Your task to perform on an android device: find which apps use the phone's location Image 0: 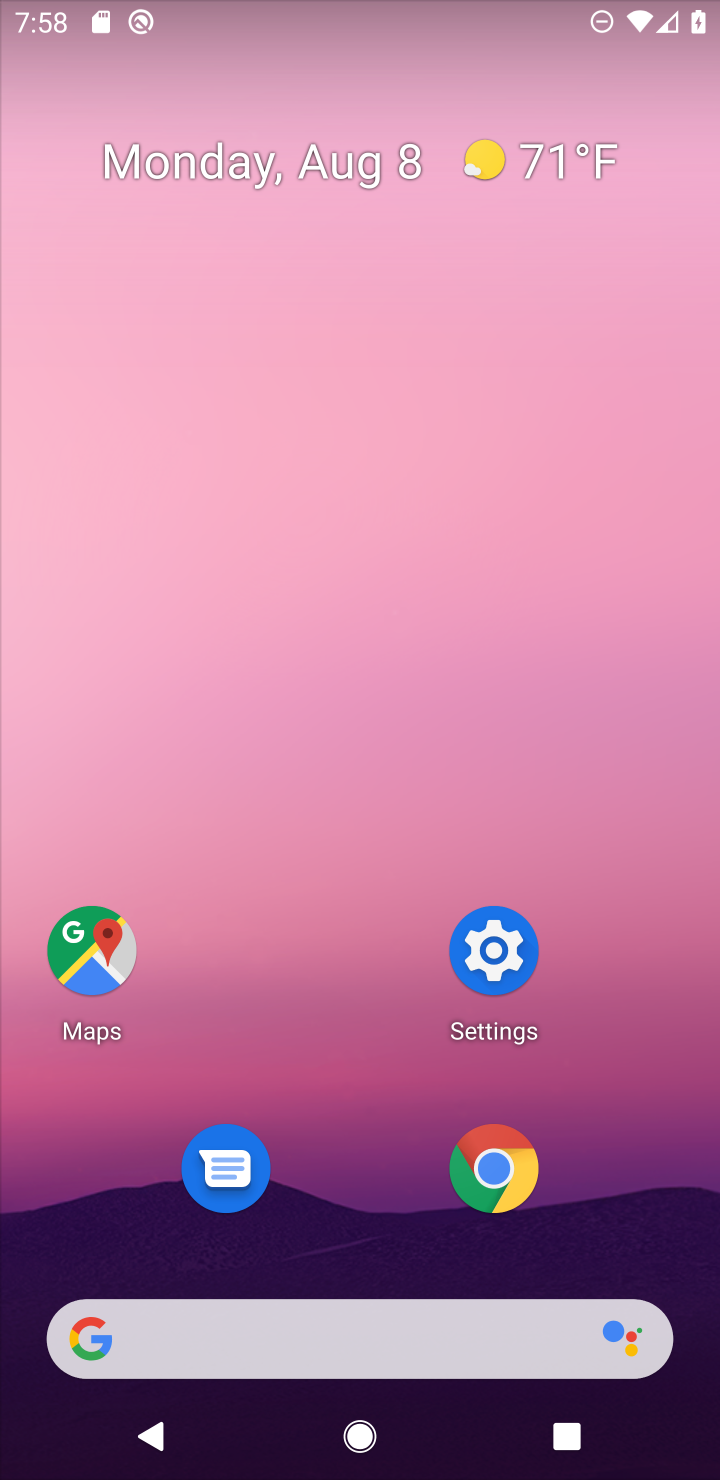
Step 0: press home button
Your task to perform on an android device: find which apps use the phone's location Image 1: 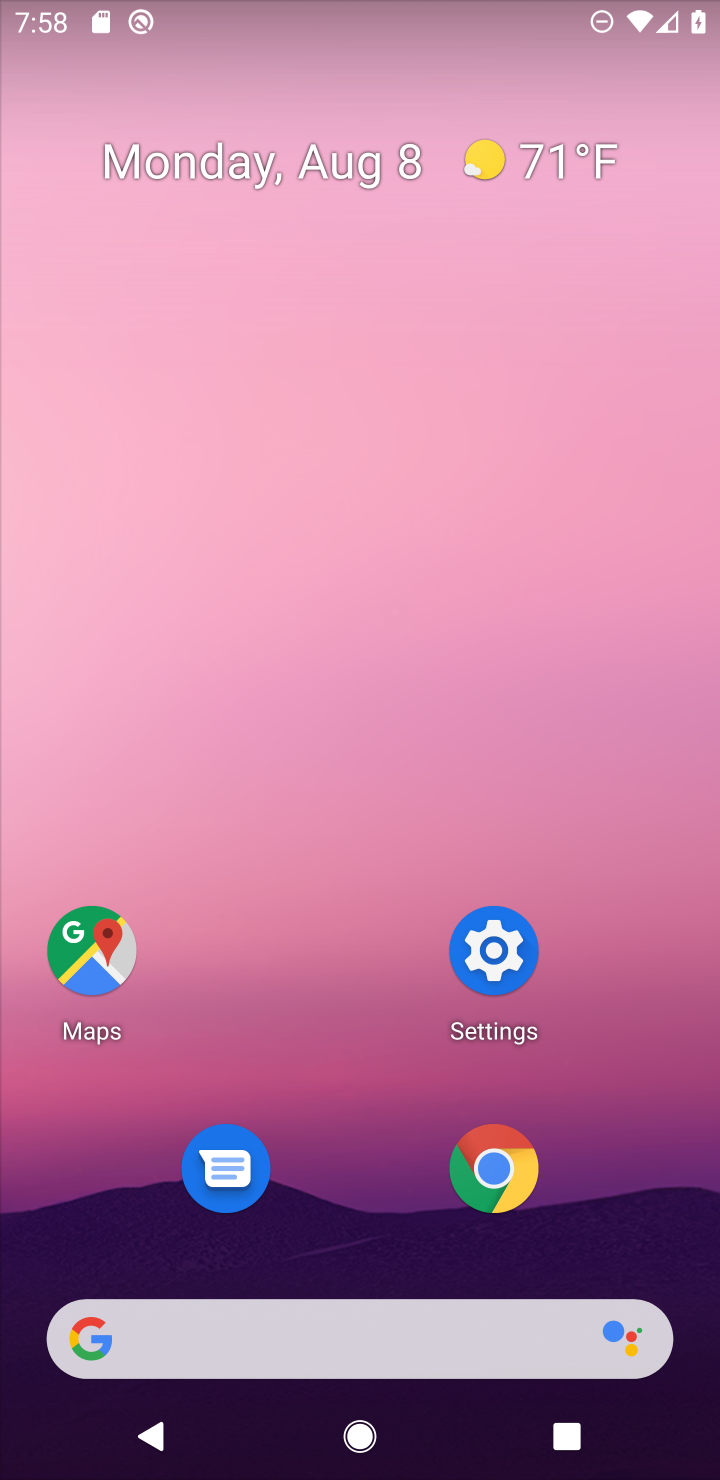
Step 1: click (500, 944)
Your task to perform on an android device: find which apps use the phone's location Image 2: 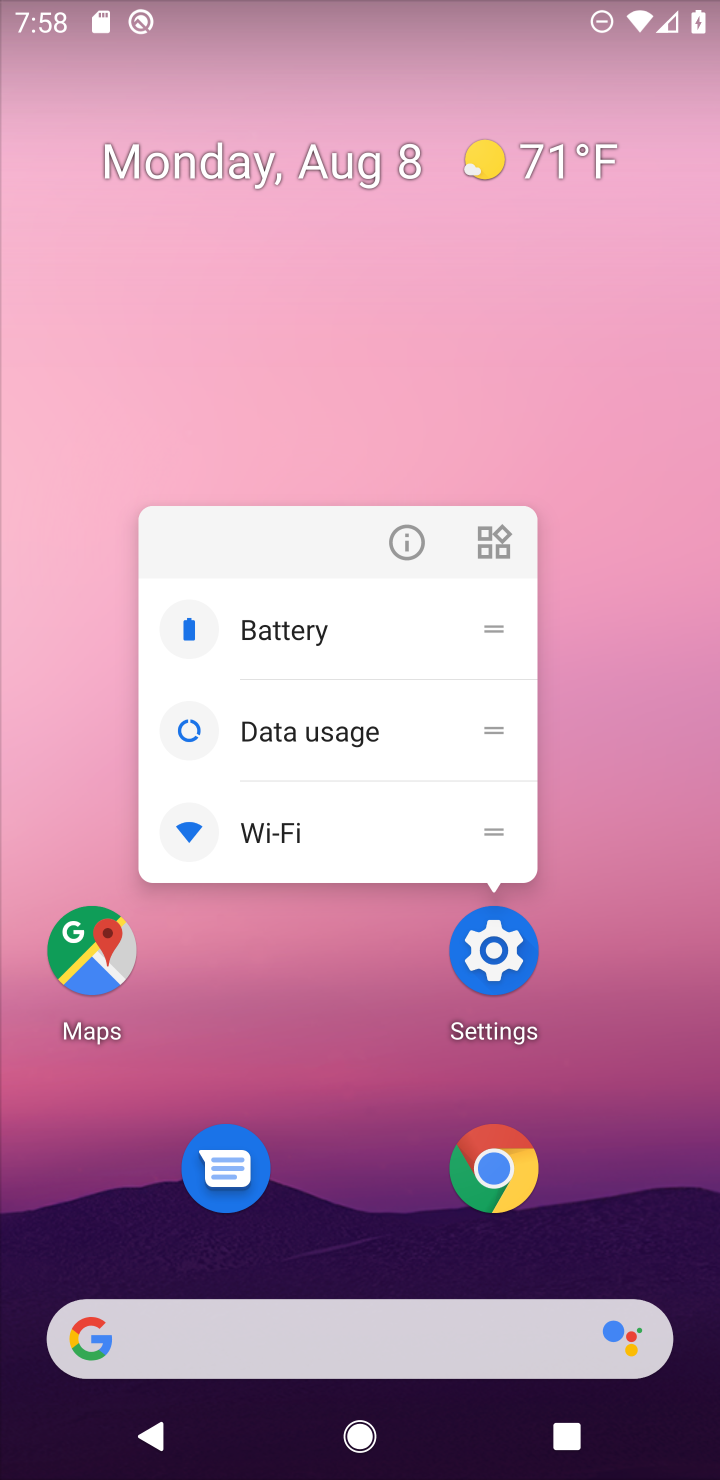
Step 2: click (500, 950)
Your task to perform on an android device: find which apps use the phone's location Image 3: 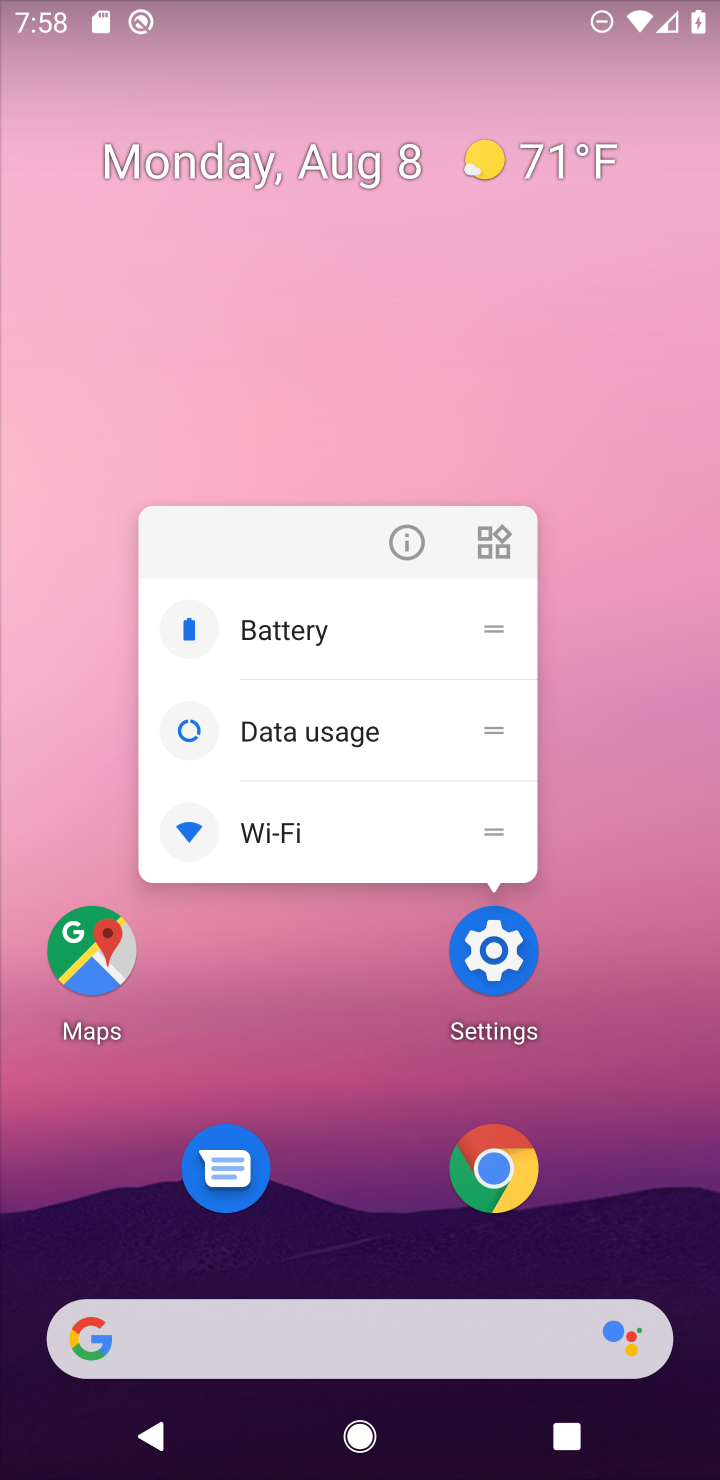
Step 3: click (510, 967)
Your task to perform on an android device: find which apps use the phone's location Image 4: 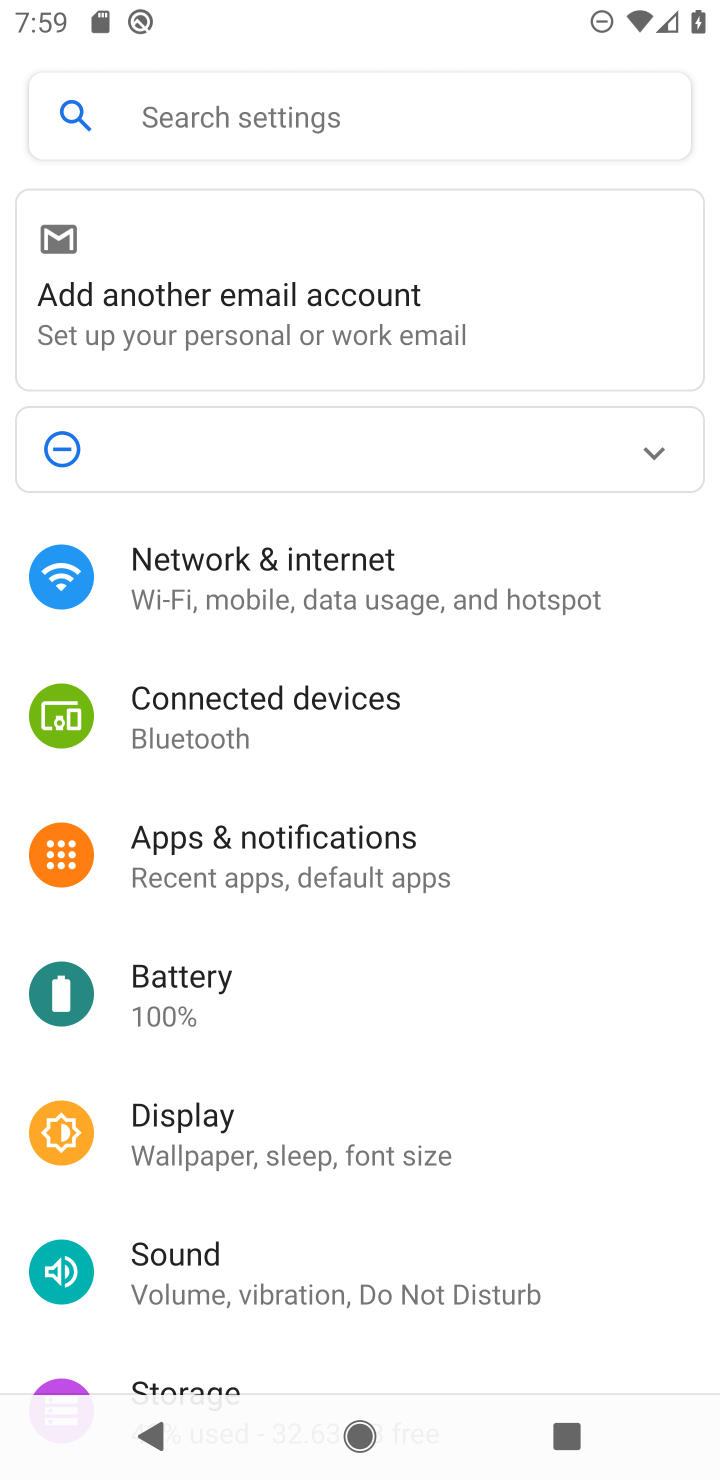
Step 4: drag from (435, 1238) to (626, 421)
Your task to perform on an android device: find which apps use the phone's location Image 5: 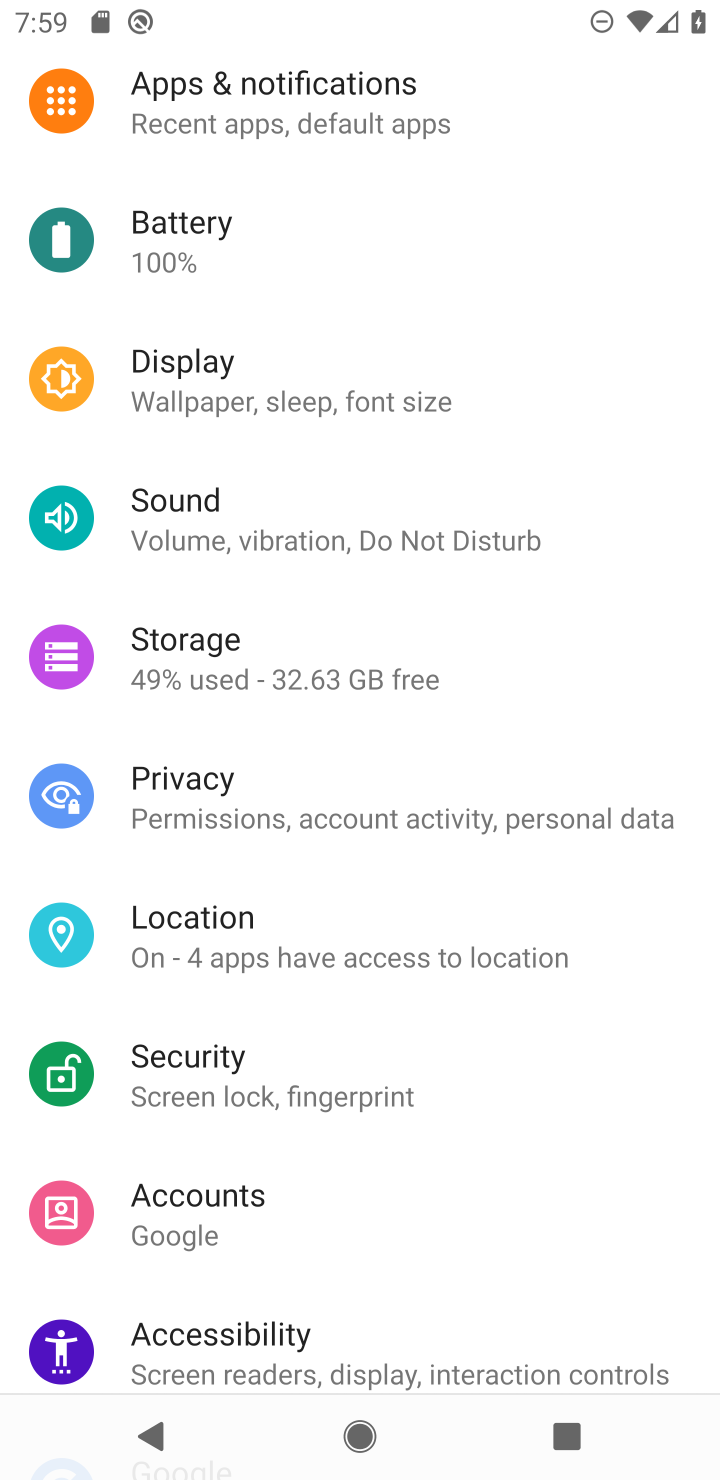
Step 5: click (238, 912)
Your task to perform on an android device: find which apps use the phone's location Image 6: 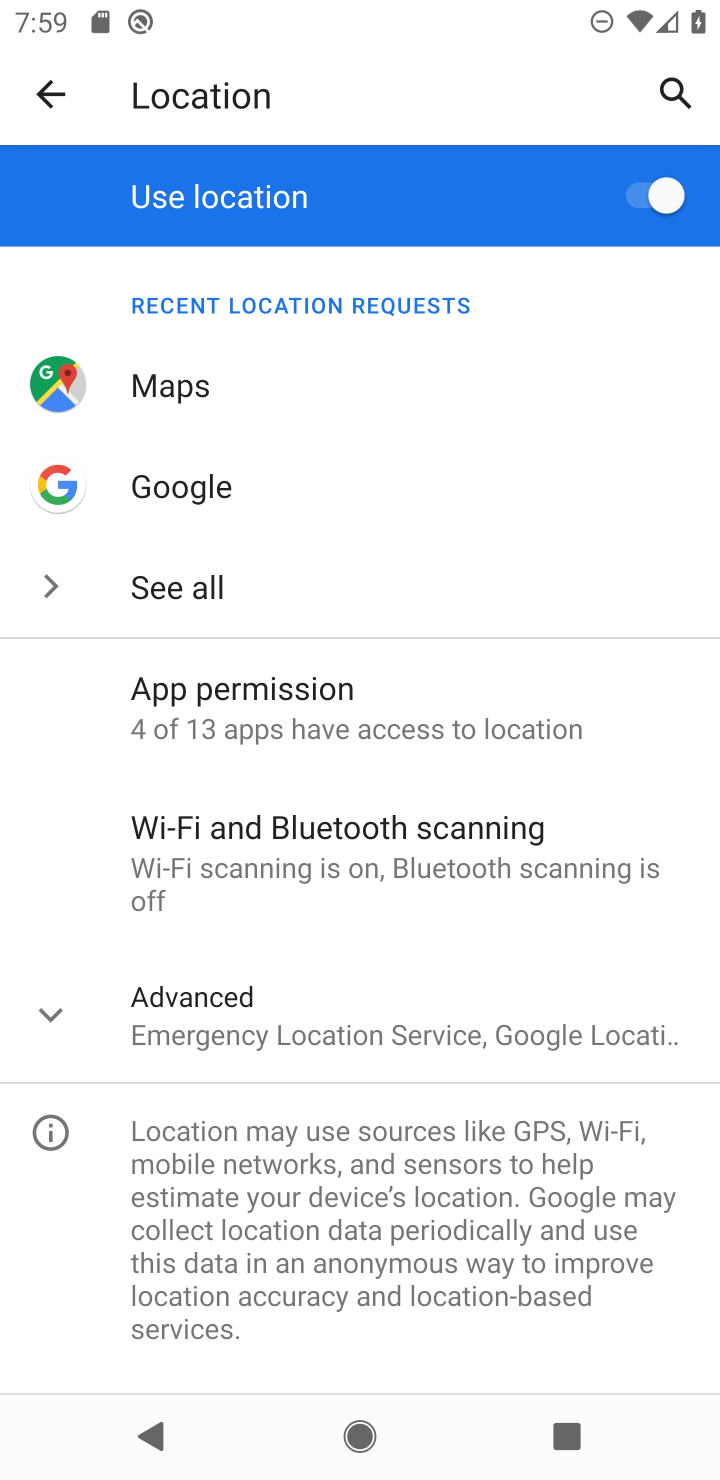
Step 6: click (188, 706)
Your task to perform on an android device: find which apps use the phone's location Image 7: 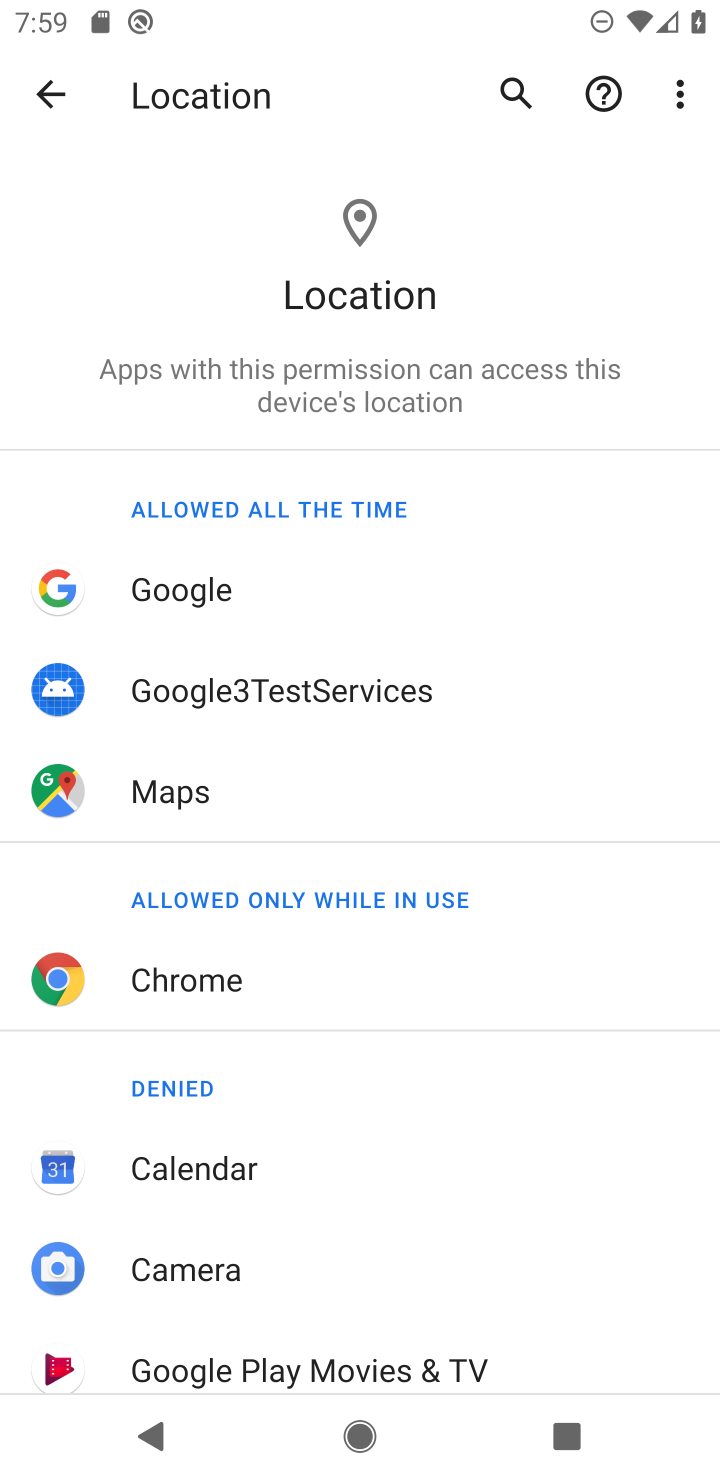
Step 7: drag from (427, 1225) to (662, 13)
Your task to perform on an android device: find which apps use the phone's location Image 8: 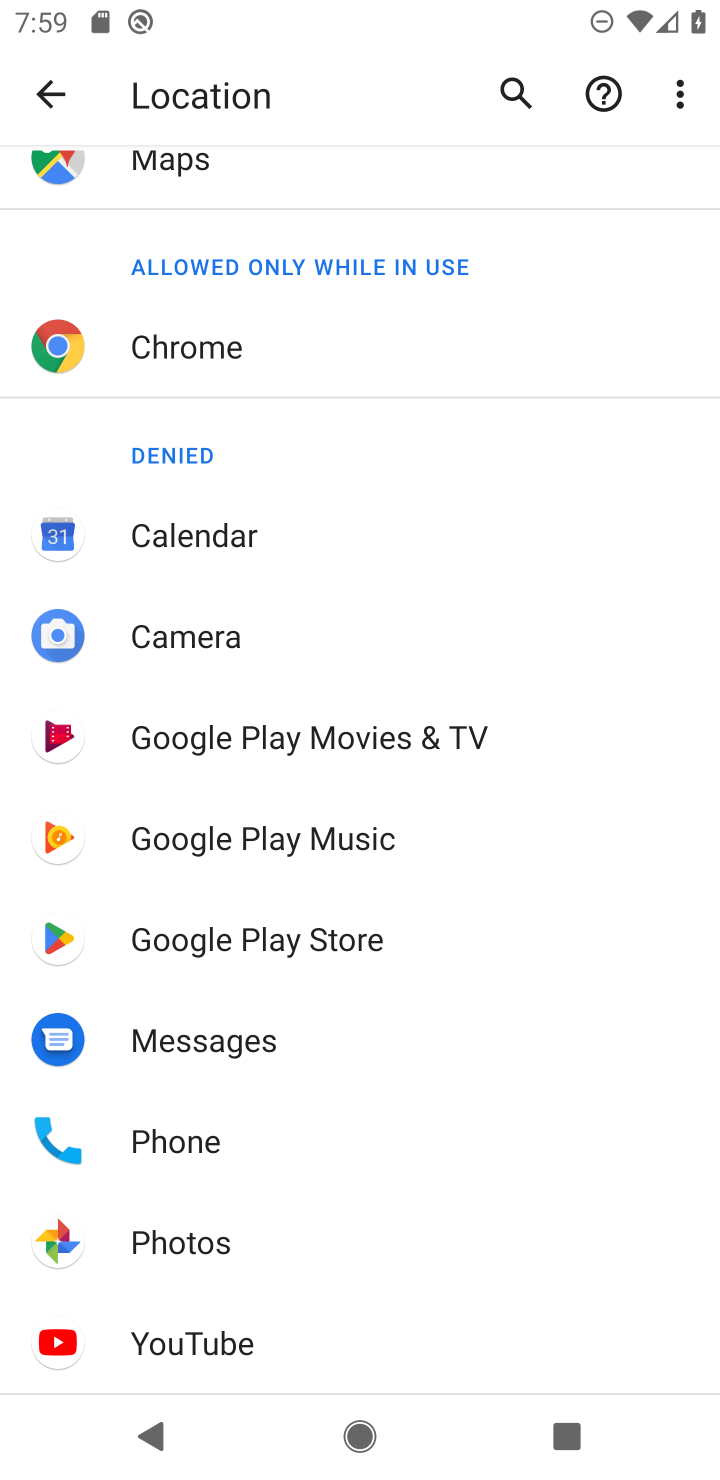
Step 8: click (161, 1136)
Your task to perform on an android device: find which apps use the phone's location Image 9: 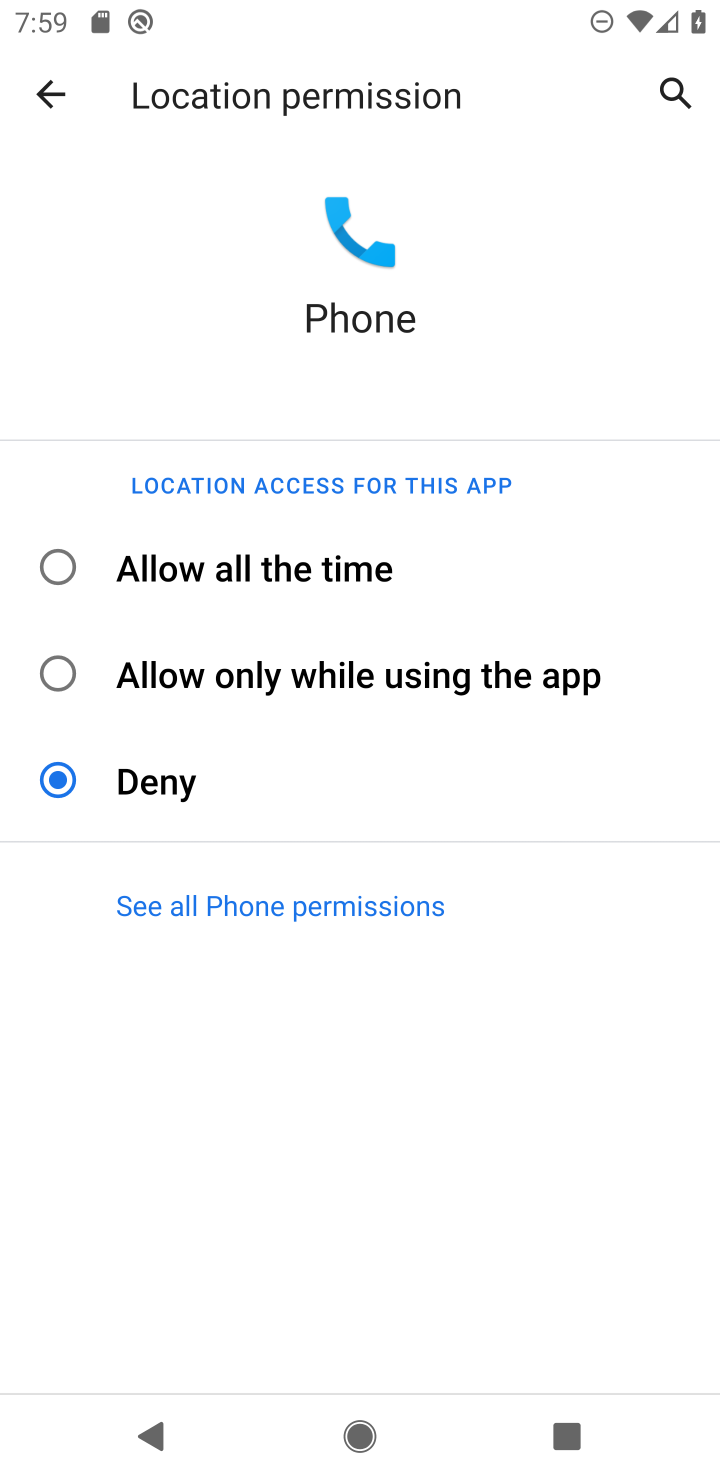
Step 9: task complete